Your task to perform on an android device: Open the Play Movies app and select the watchlist tab. Image 0: 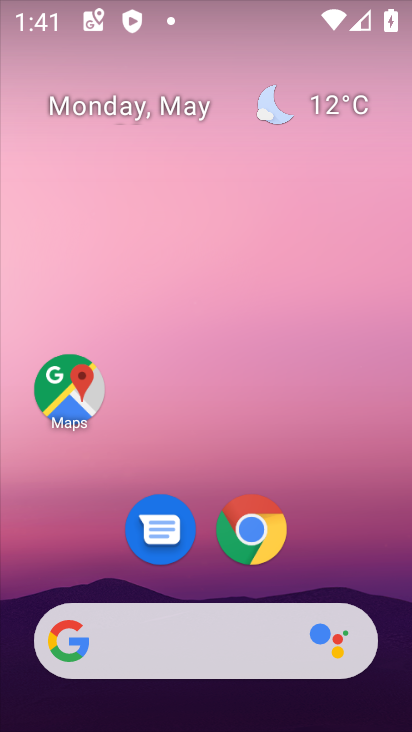
Step 0: drag from (397, 618) to (327, 204)
Your task to perform on an android device: Open the Play Movies app and select the watchlist tab. Image 1: 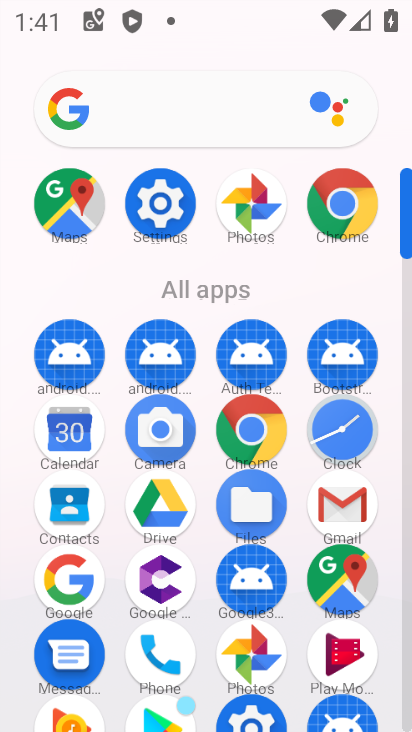
Step 1: click (407, 686)
Your task to perform on an android device: Open the Play Movies app and select the watchlist tab. Image 2: 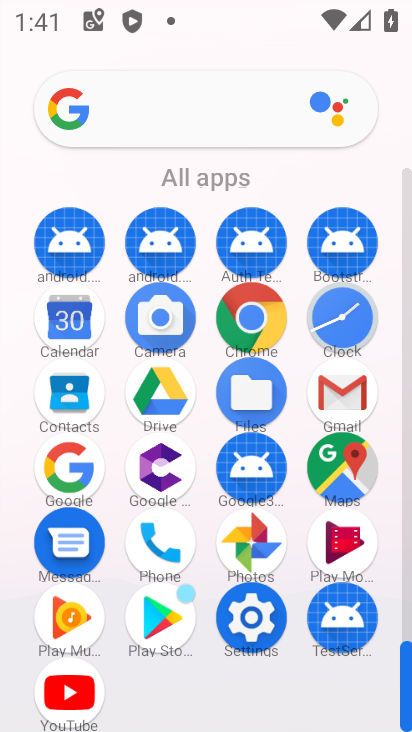
Step 2: click (355, 544)
Your task to perform on an android device: Open the Play Movies app and select the watchlist tab. Image 3: 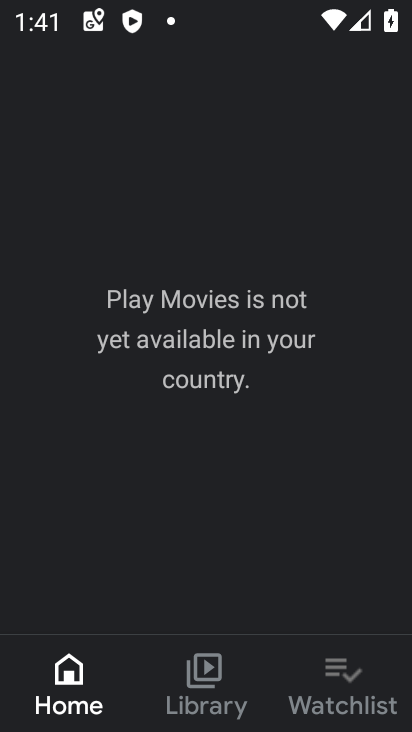
Step 3: click (342, 678)
Your task to perform on an android device: Open the Play Movies app and select the watchlist tab. Image 4: 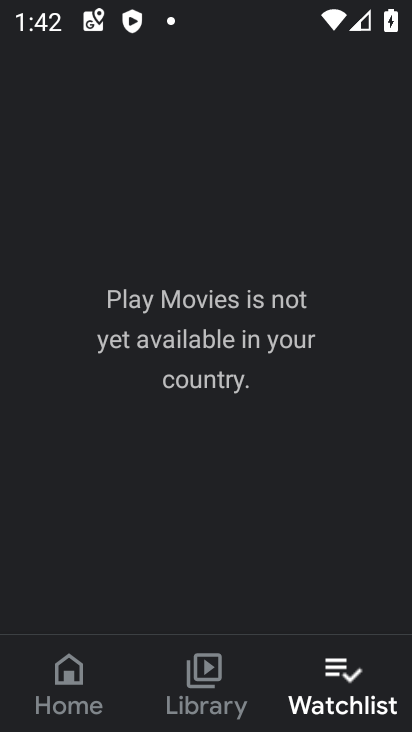
Step 4: task complete